Your task to perform on an android device: Open Google Maps Image 0: 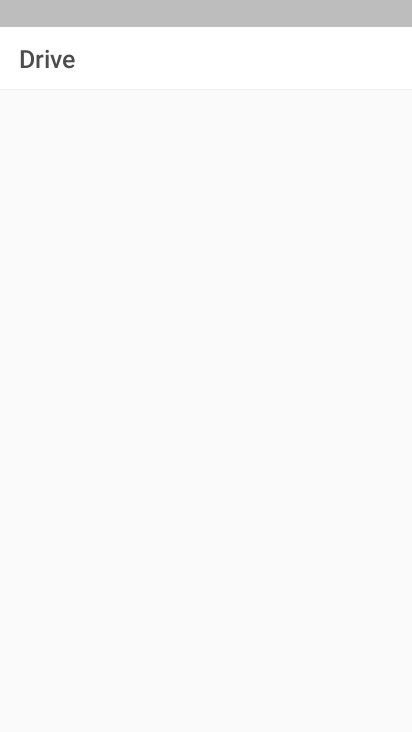
Step 0: press home button
Your task to perform on an android device: Open Google Maps Image 1: 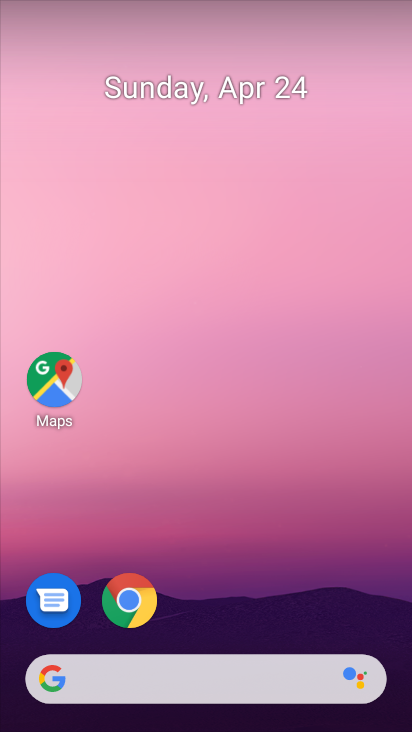
Step 1: click (43, 375)
Your task to perform on an android device: Open Google Maps Image 2: 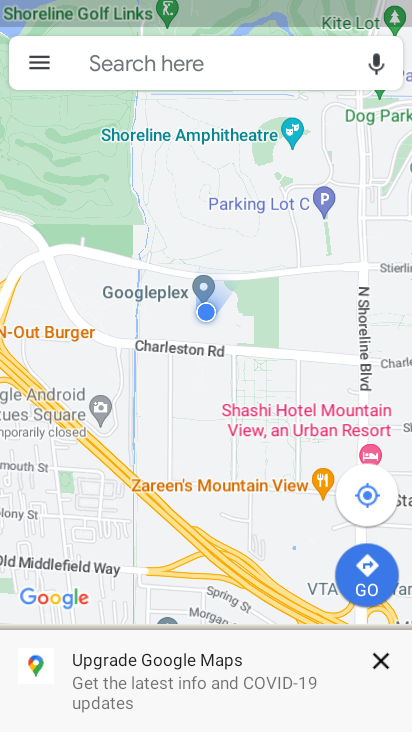
Step 2: task complete